Your task to perform on an android device: turn on the 12-hour format for clock Image 0: 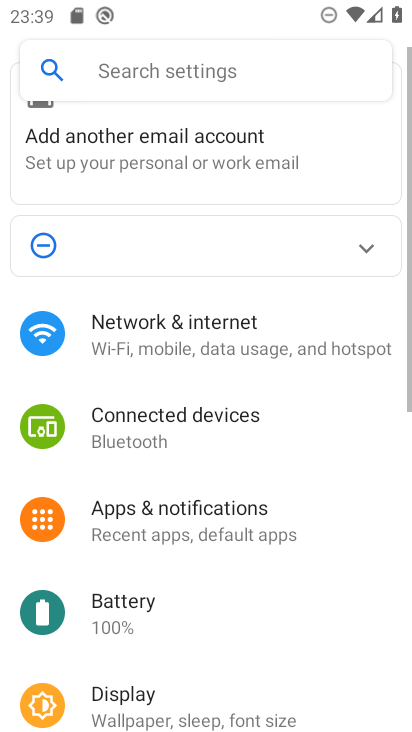
Step 0: press home button
Your task to perform on an android device: turn on the 12-hour format for clock Image 1: 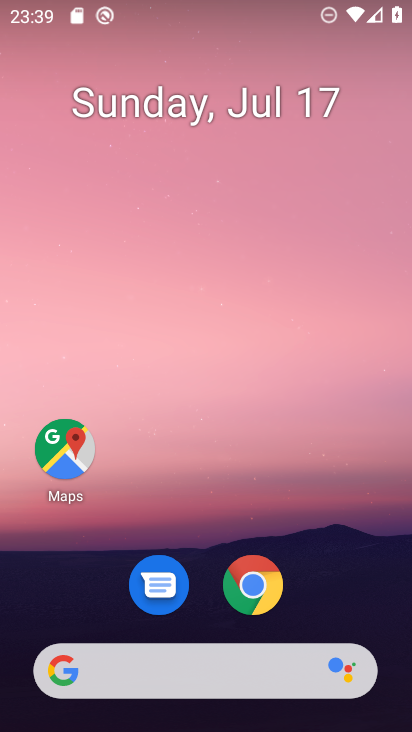
Step 1: drag from (181, 679) to (313, 167)
Your task to perform on an android device: turn on the 12-hour format for clock Image 2: 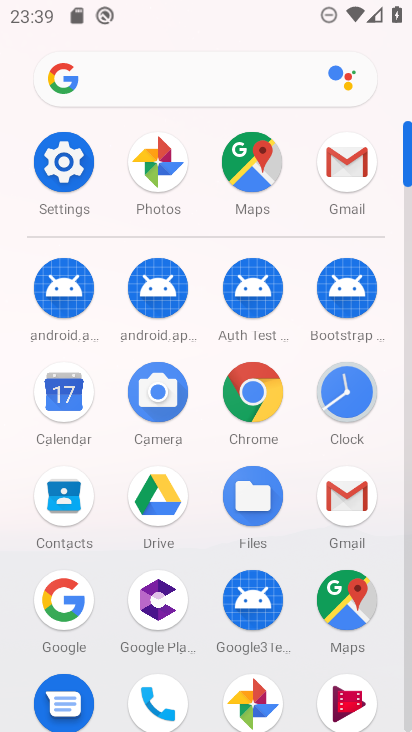
Step 2: click (347, 391)
Your task to perform on an android device: turn on the 12-hour format for clock Image 3: 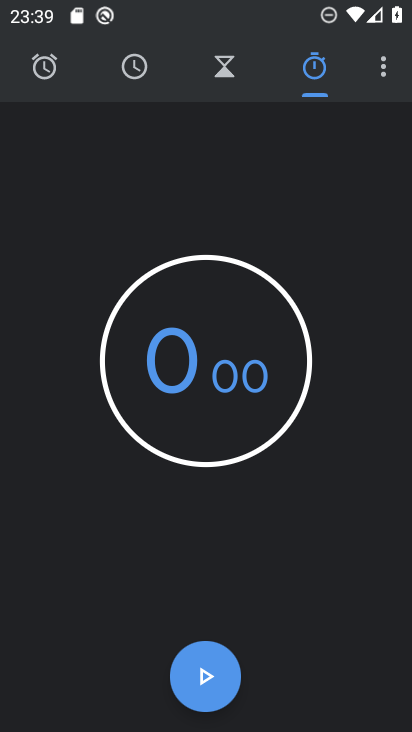
Step 3: click (381, 61)
Your task to perform on an android device: turn on the 12-hour format for clock Image 4: 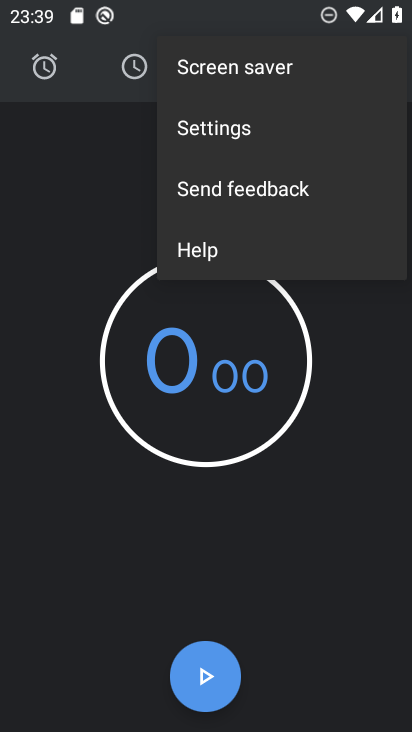
Step 4: click (238, 130)
Your task to perform on an android device: turn on the 12-hour format for clock Image 5: 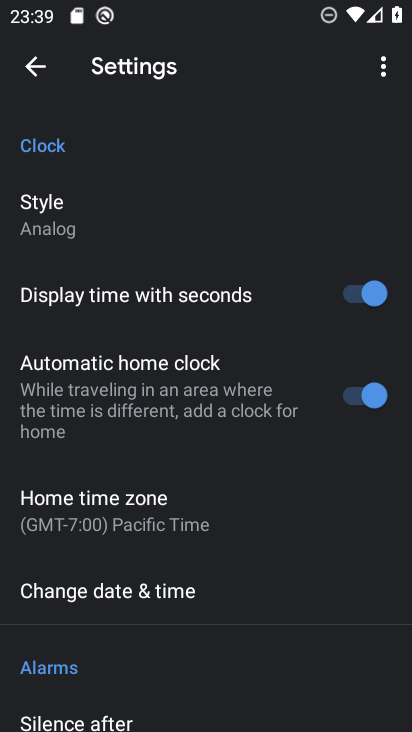
Step 5: click (108, 596)
Your task to perform on an android device: turn on the 12-hour format for clock Image 6: 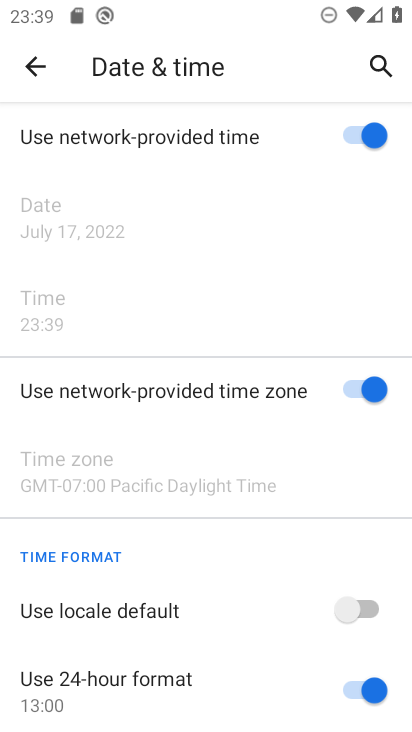
Step 6: drag from (236, 650) to (329, 145)
Your task to perform on an android device: turn on the 12-hour format for clock Image 7: 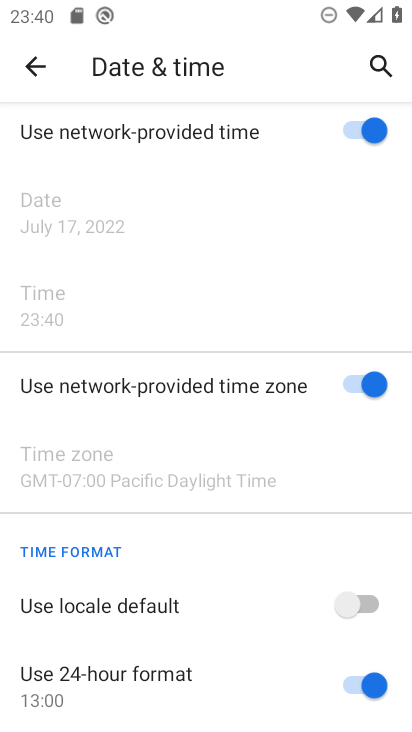
Step 7: click (365, 608)
Your task to perform on an android device: turn on the 12-hour format for clock Image 8: 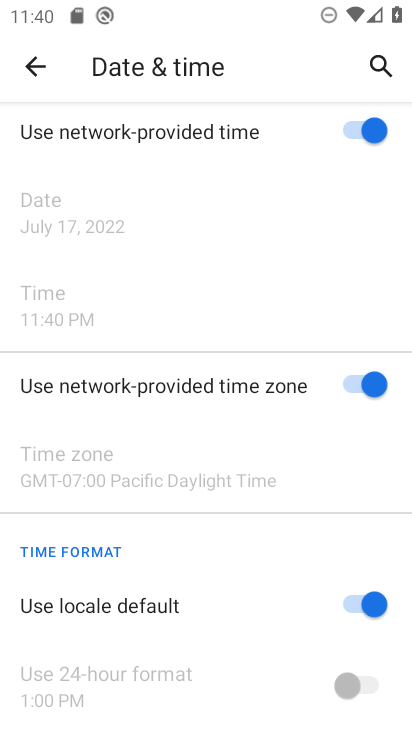
Step 8: task complete